Your task to perform on an android device: Go to Yahoo.com Image 0: 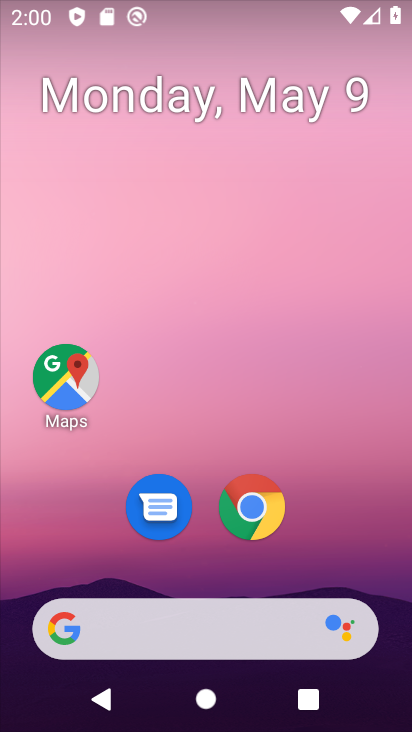
Step 0: click (232, 642)
Your task to perform on an android device: Go to Yahoo.com Image 1: 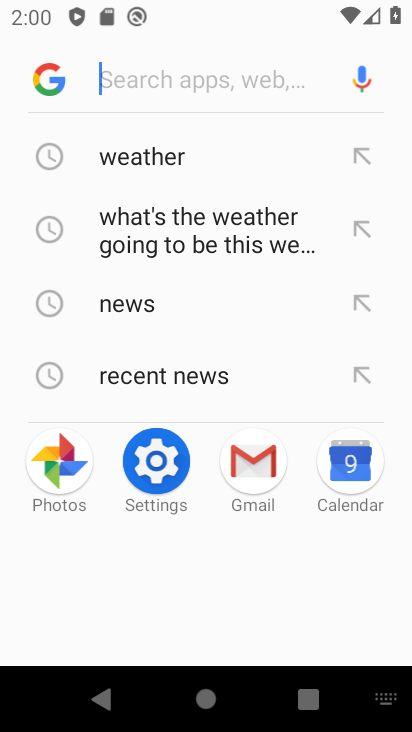
Step 1: type "Yahoo.com"
Your task to perform on an android device: Go to Yahoo.com Image 2: 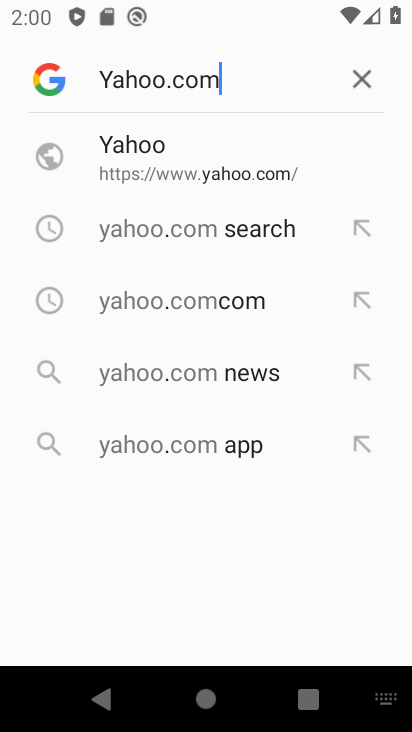
Step 2: click (223, 155)
Your task to perform on an android device: Go to Yahoo.com Image 3: 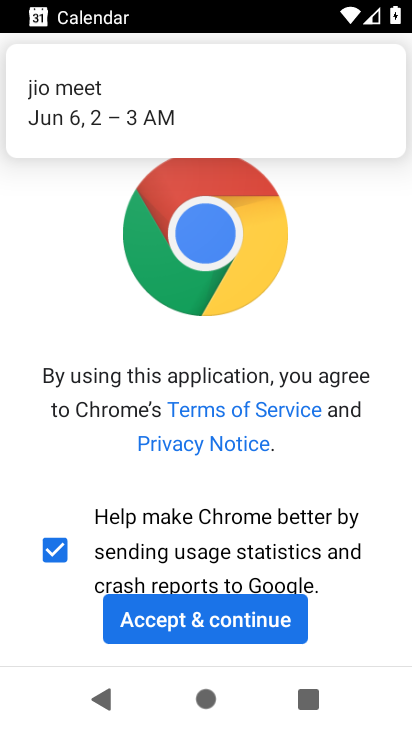
Step 3: click (243, 617)
Your task to perform on an android device: Go to Yahoo.com Image 4: 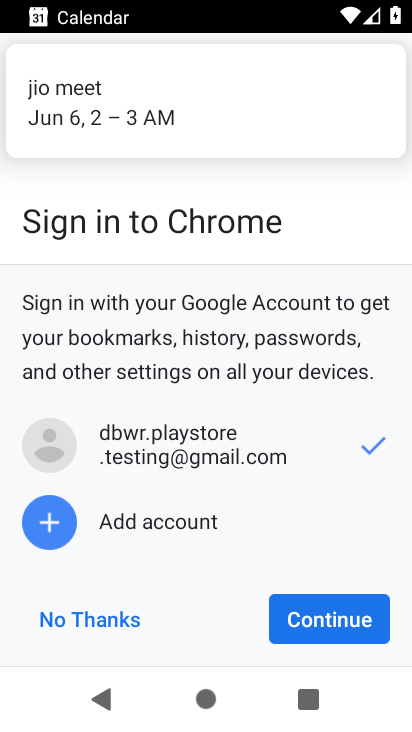
Step 4: click (312, 617)
Your task to perform on an android device: Go to Yahoo.com Image 5: 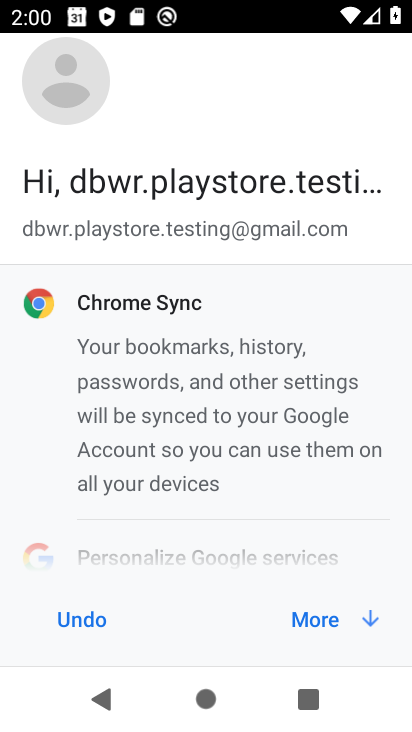
Step 5: click (312, 617)
Your task to perform on an android device: Go to Yahoo.com Image 6: 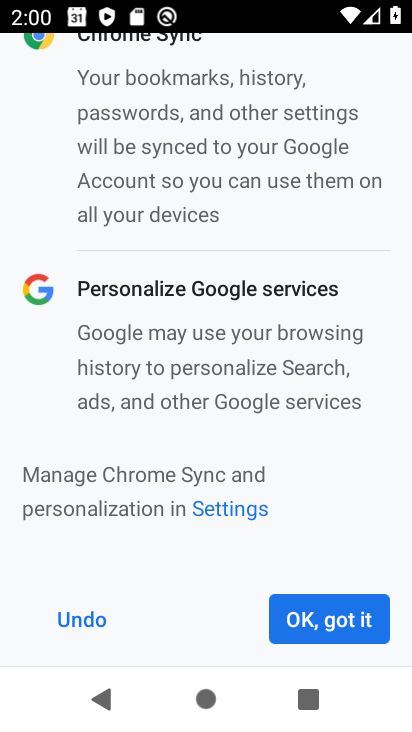
Step 6: click (312, 617)
Your task to perform on an android device: Go to Yahoo.com Image 7: 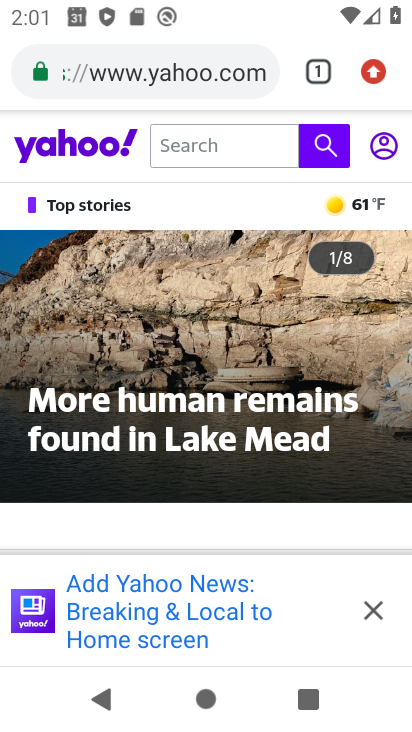
Step 7: task complete